Your task to perform on an android device: delete browsing data in the chrome app Image 0: 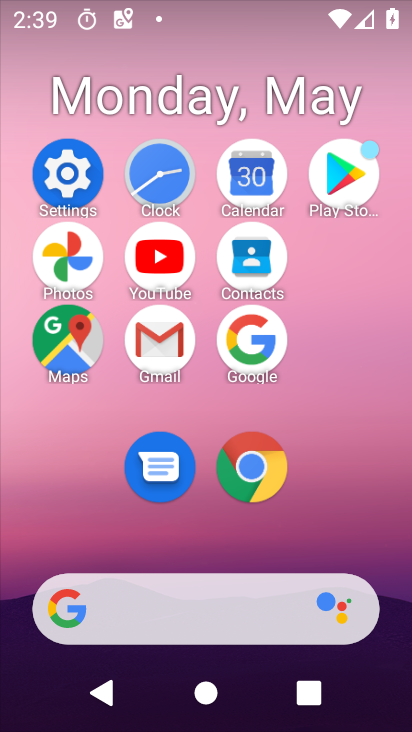
Step 0: click (251, 462)
Your task to perform on an android device: delete browsing data in the chrome app Image 1: 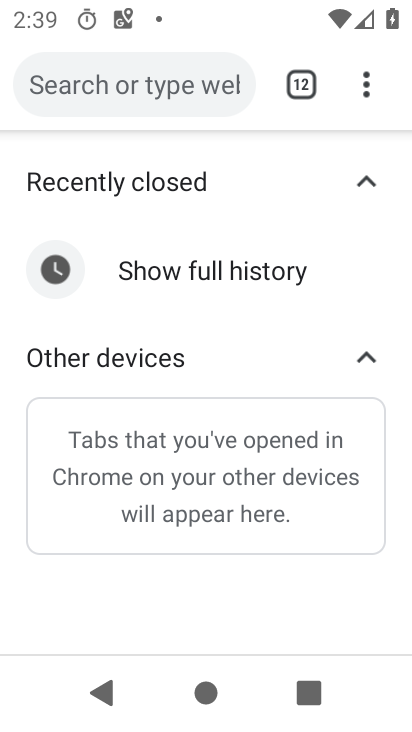
Step 1: click (369, 86)
Your task to perform on an android device: delete browsing data in the chrome app Image 2: 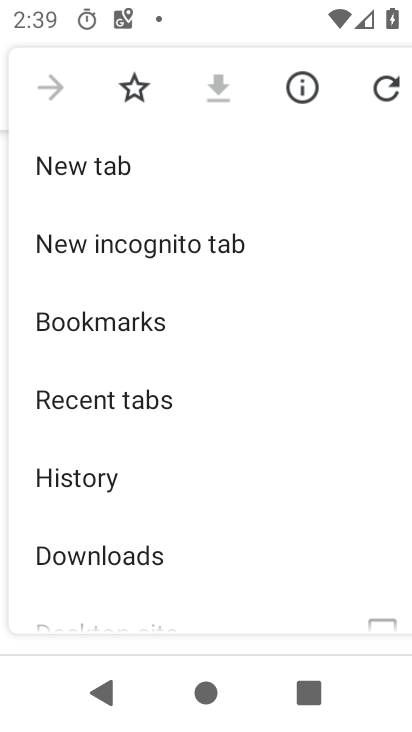
Step 2: drag from (236, 526) to (255, 178)
Your task to perform on an android device: delete browsing data in the chrome app Image 3: 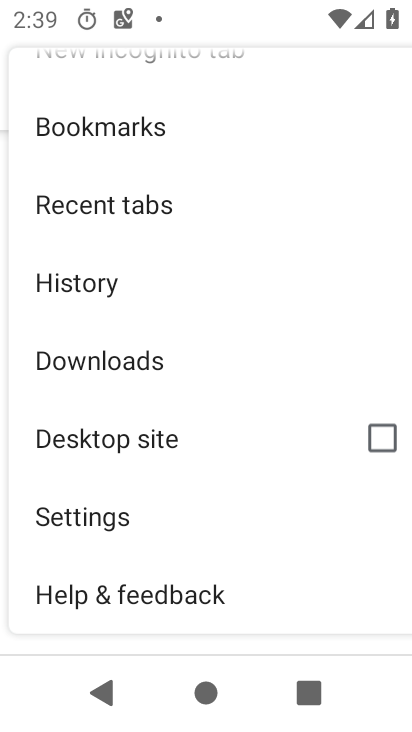
Step 3: click (188, 491)
Your task to perform on an android device: delete browsing data in the chrome app Image 4: 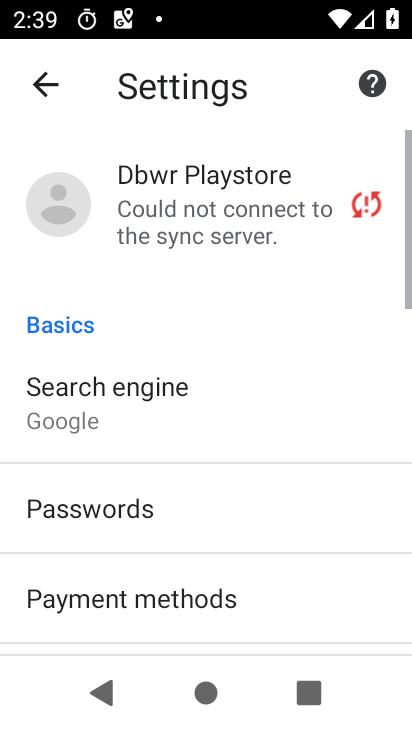
Step 4: drag from (228, 572) to (271, 208)
Your task to perform on an android device: delete browsing data in the chrome app Image 5: 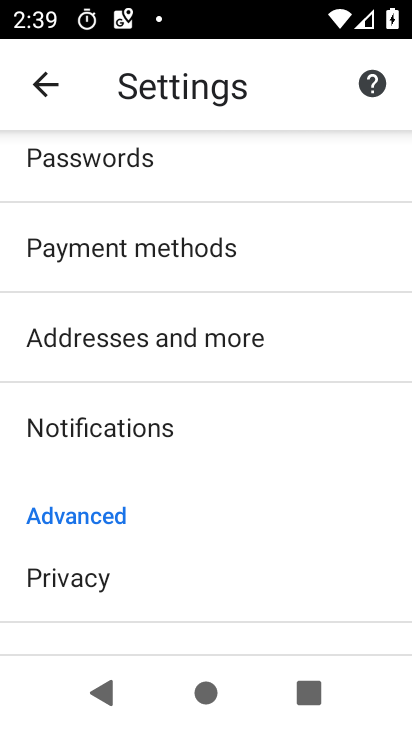
Step 5: drag from (234, 530) to (276, 171)
Your task to perform on an android device: delete browsing data in the chrome app Image 6: 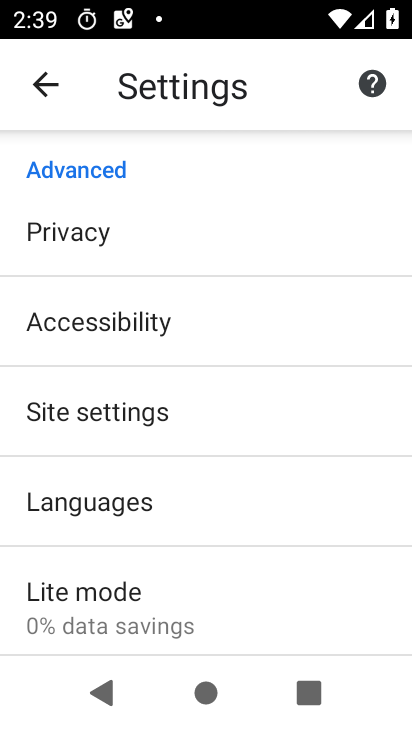
Step 6: click (197, 225)
Your task to perform on an android device: delete browsing data in the chrome app Image 7: 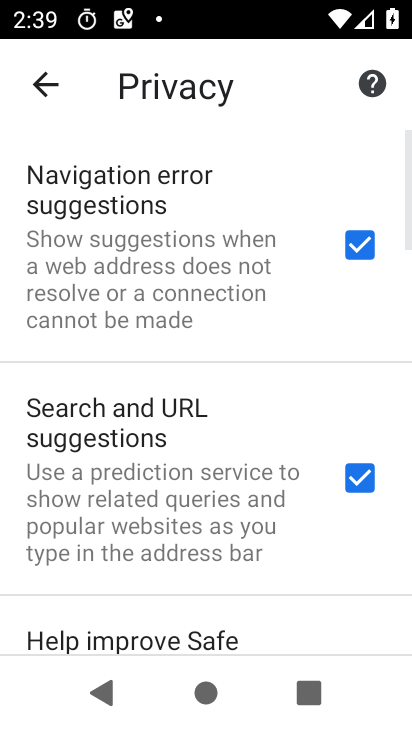
Step 7: drag from (224, 564) to (214, 192)
Your task to perform on an android device: delete browsing data in the chrome app Image 8: 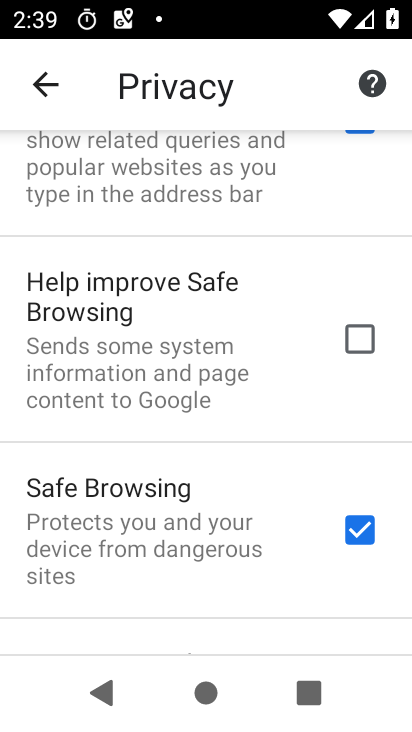
Step 8: drag from (227, 561) to (236, 182)
Your task to perform on an android device: delete browsing data in the chrome app Image 9: 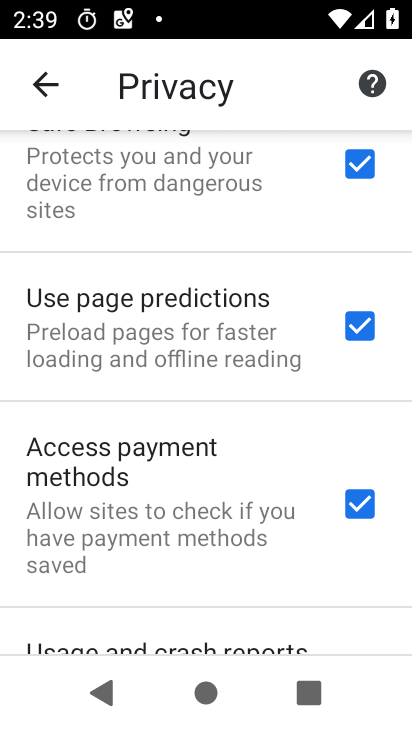
Step 9: drag from (242, 585) to (240, 156)
Your task to perform on an android device: delete browsing data in the chrome app Image 10: 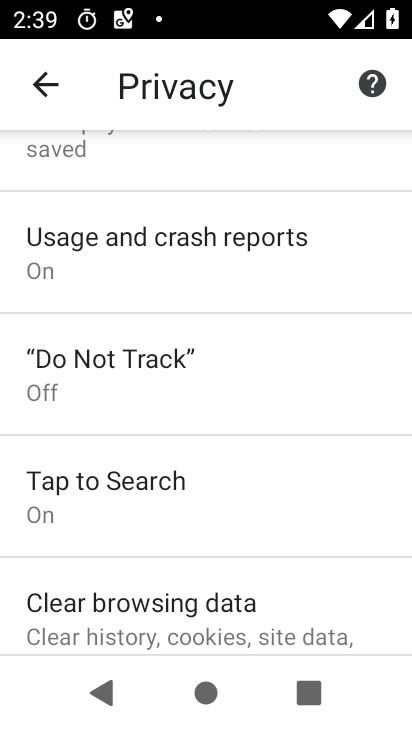
Step 10: drag from (265, 569) to (251, 223)
Your task to perform on an android device: delete browsing data in the chrome app Image 11: 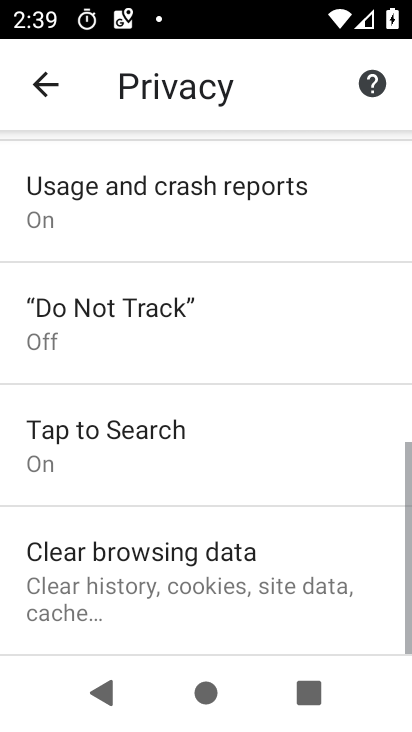
Step 11: click (245, 562)
Your task to perform on an android device: delete browsing data in the chrome app Image 12: 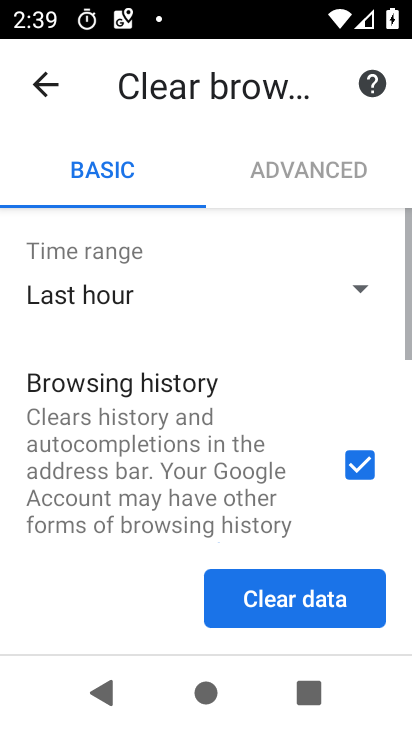
Step 12: drag from (289, 518) to (281, 184)
Your task to perform on an android device: delete browsing data in the chrome app Image 13: 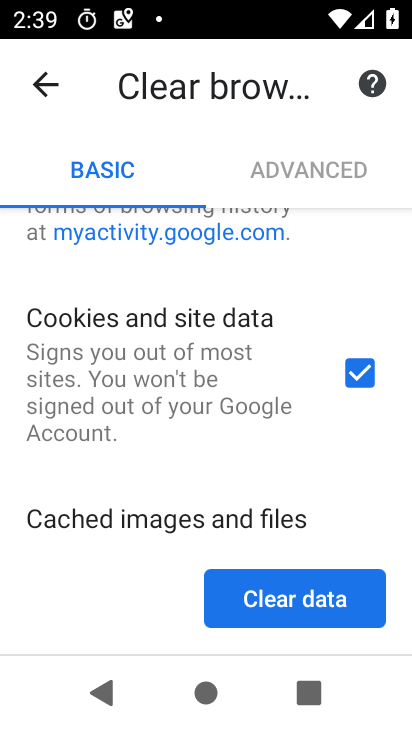
Step 13: click (281, 590)
Your task to perform on an android device: delete browsing data in the chrome app Image 14: 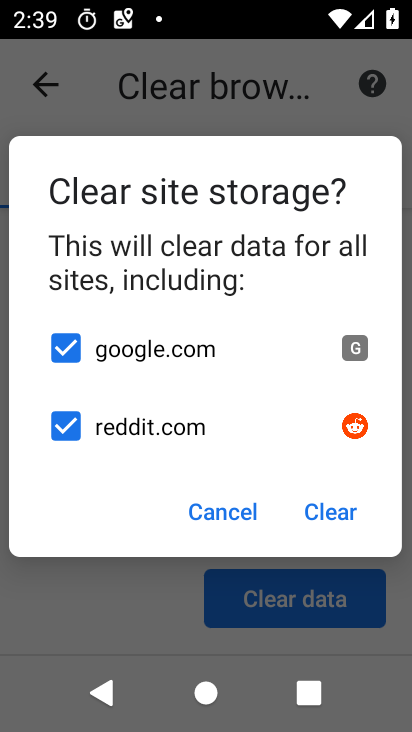
Step 14: click (353, 509)
Your task to perform on an android device: delete browsing data in the chrome app Image 15: 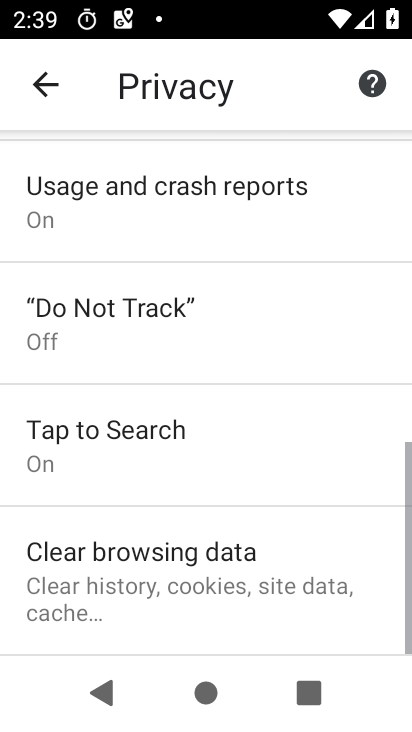
Step 15: task complete